Your task to perform on an android device: open a bookmark in the chrome app Image 0: 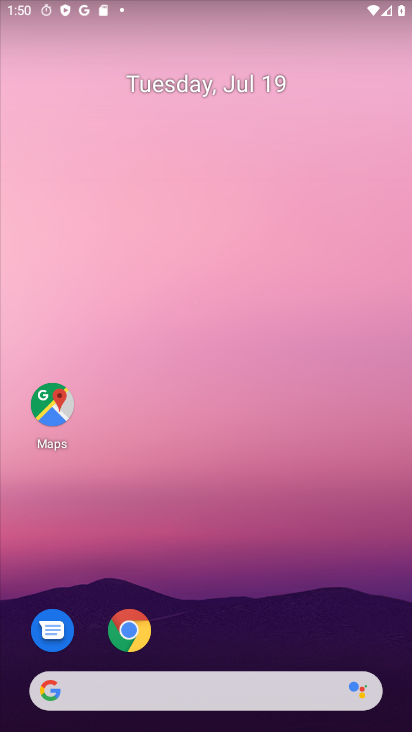
Step 0: click (122, 637)
Your task to perform on an android device: open a bookmark in the chrome app Image 1: 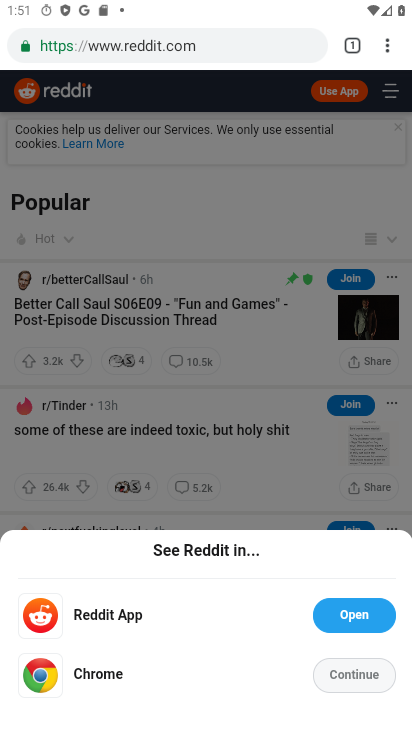
Step 1: click (396, 52)
Your task to perform on an android device: open a bookmark in the chrome app Image 2: 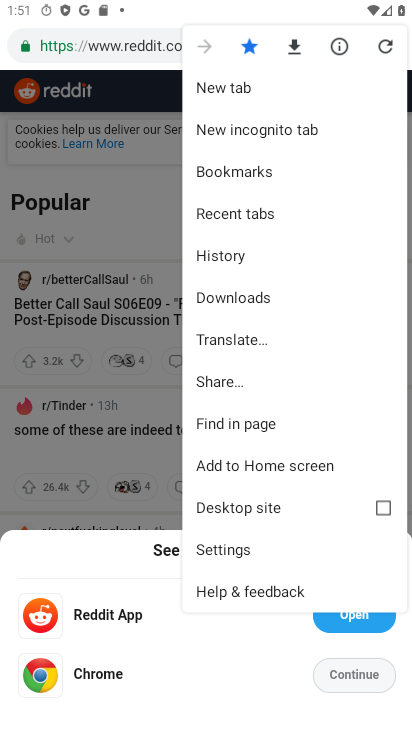
Step 2: click (221, 171)
Your task to perform on an android device: open a bookmark in the chrome app Image 3: 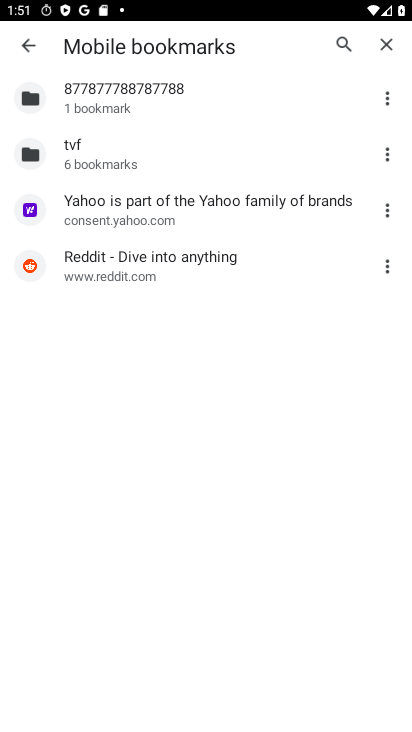
Step 3: click (118, 193)
Your task to perform on an android device: open a bookmark in the chrome app Image 4: 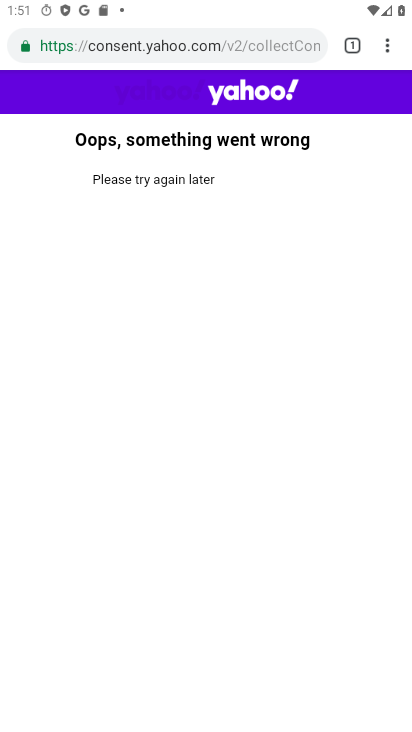
Step 4: task complete